Your task to perform on an android device: Open network settings Image 0: 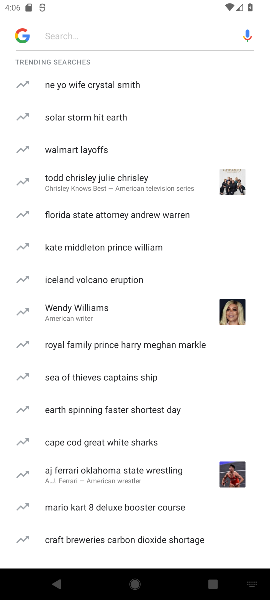
Step 0: press home button
Your task to perform on an android device: Open network settings Image 1: 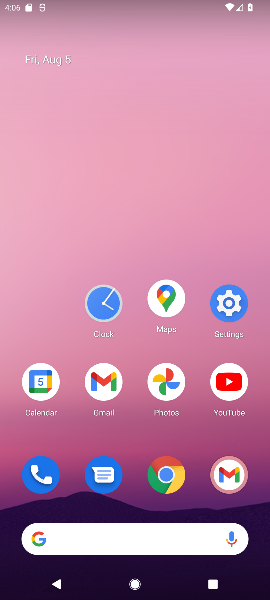
Step 1: click (232, 298)
Your task to perform on an android device: Open network settings Image 2: 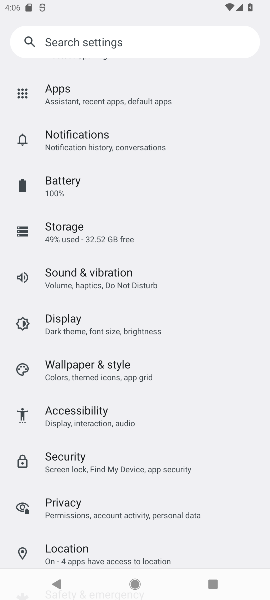
Step 2: drag from (207, 117) to (248, 452)
Your task to perform on an android device: Open network settings Image 3: 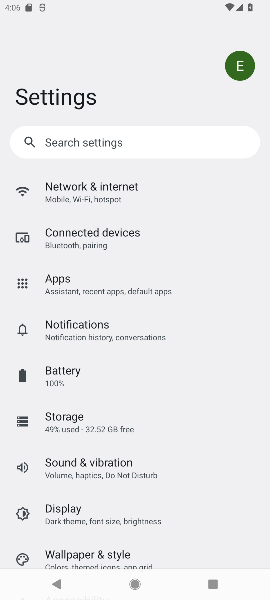
Step 3: click (71, 196)
Your task to perform on an android device: Open network settings Image 4: 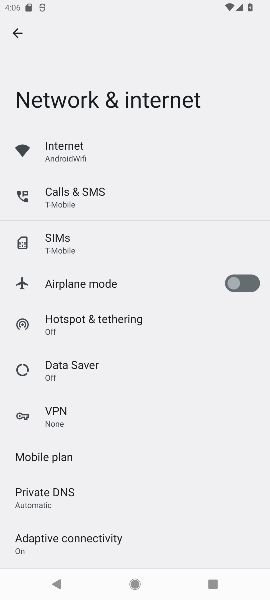
Step 4: task complete